Your task to perform on an android device: turn off wifi Image 0: 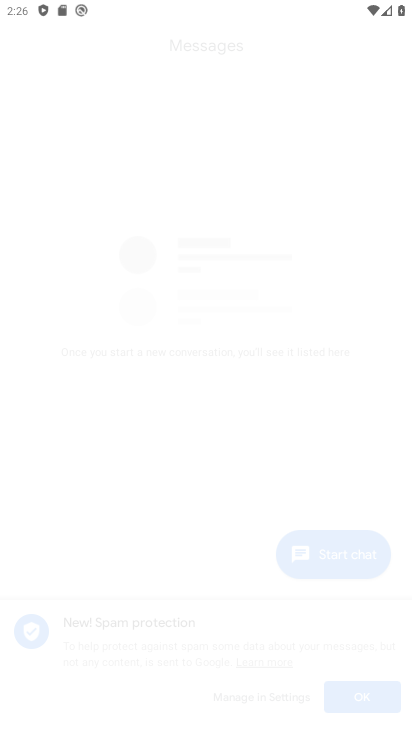
Step 0: drag from (221, 657) to (206, 3)
Your task to perform on an android device: turn off wifi Image 1: 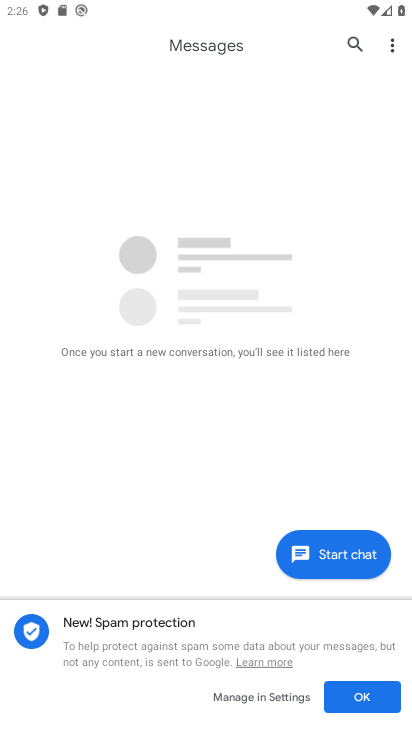
Step 1: press home button
Your task to perform on an android device: turn off wifi Image 2: 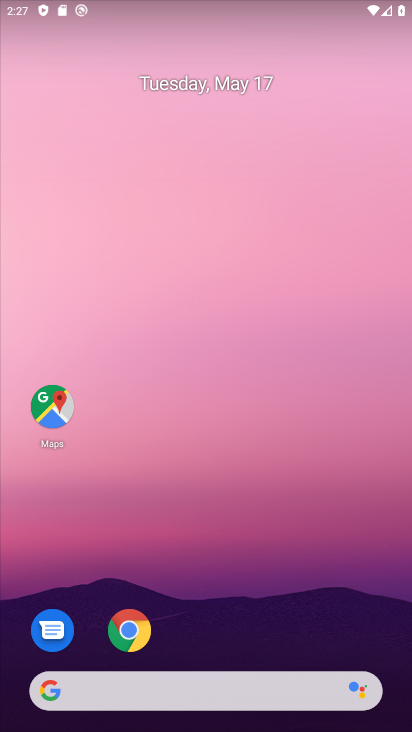
Step 2: drag from (248, 574) to (214, 100)
Your task to perform on an android device: turn off wifi Image 3: 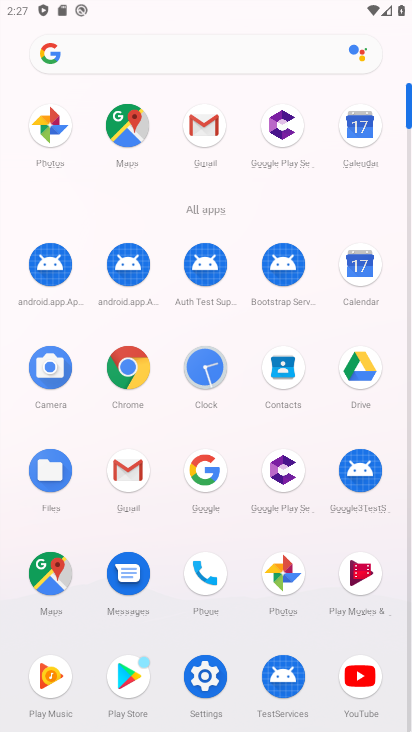
Step 3: click (202, 681)
Your task to perform on an android device: turn off wifi Image 4: 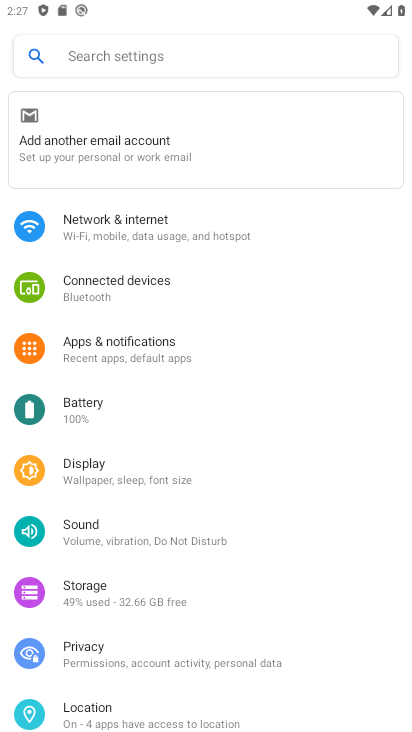
Step 4: click (195, 226)
Your task to perform on an android device: turn off wifi Image 5: 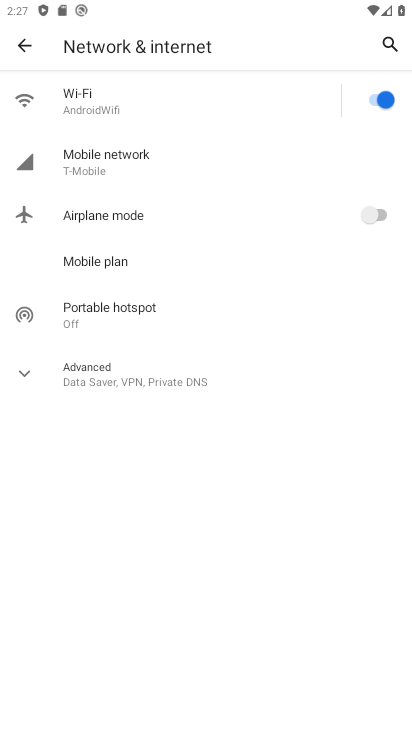
Step 5: click (101, 112)
Your task to perform on an android device: turn off wifi Image 6: 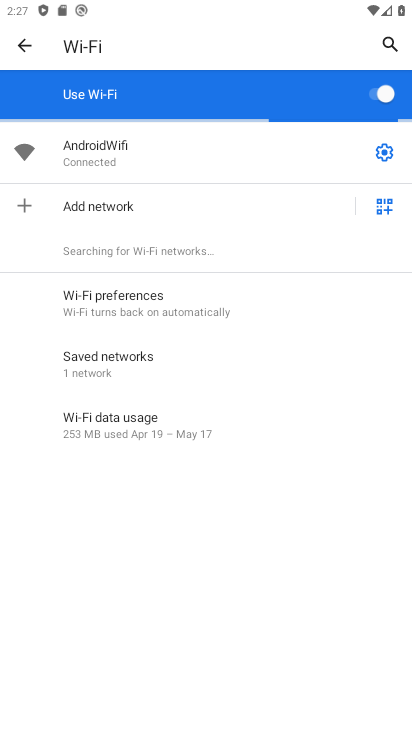
Step 6: task complete